Your task to perform on an android device: Search for Italian restaurants on Maps Image 0: 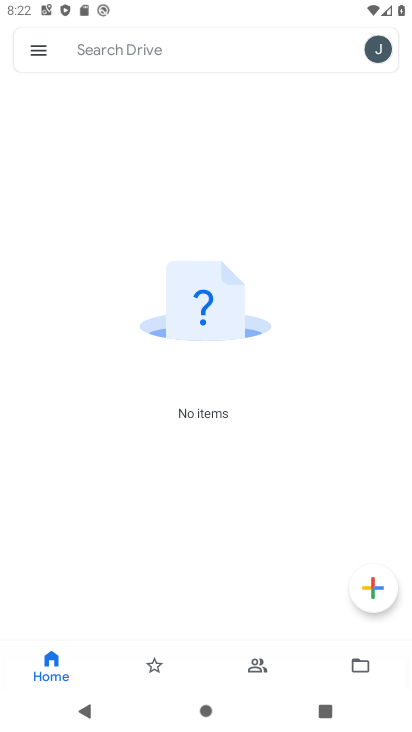
Step 0: press home button
Your task to perform on an android device: Search for Italian restaurants on Maps Image 1: 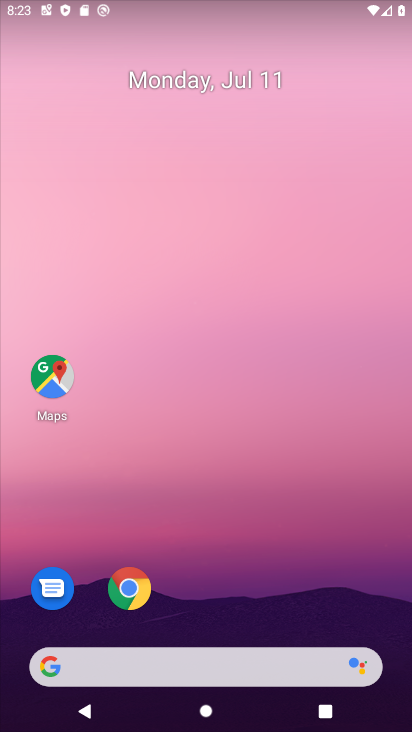
Step 1: click (59, 369)
Your task to perform on an android device: Search for Italian restaurants on Maps Image 2: 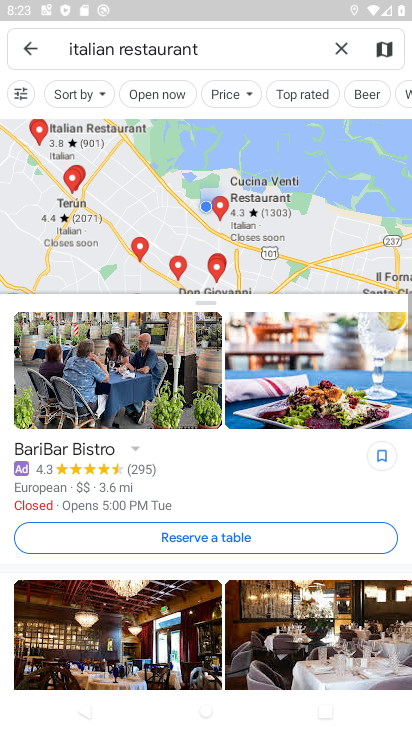
Step 2: task complete